Your task to perform on an android device: Open internet settings Image 0: 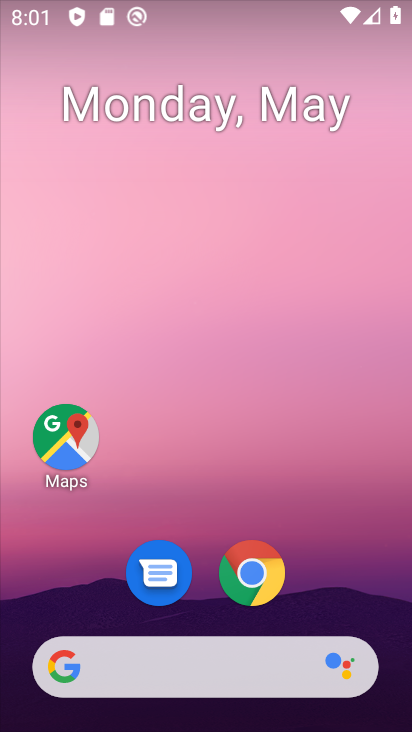
Step 0: drag from (88, 600) to (208, 134)
Your task to perform on an android device: Open internet settings Image 1: 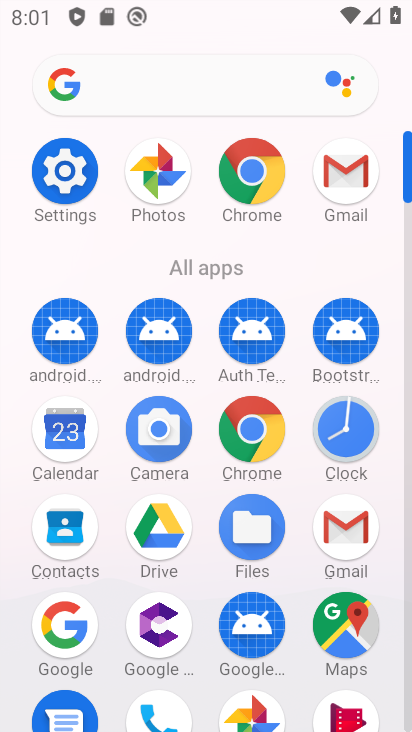
Step 1: drag from (181, 638) to (191, 374)
Your task to perform on an android device: Open internet settings Image 2: 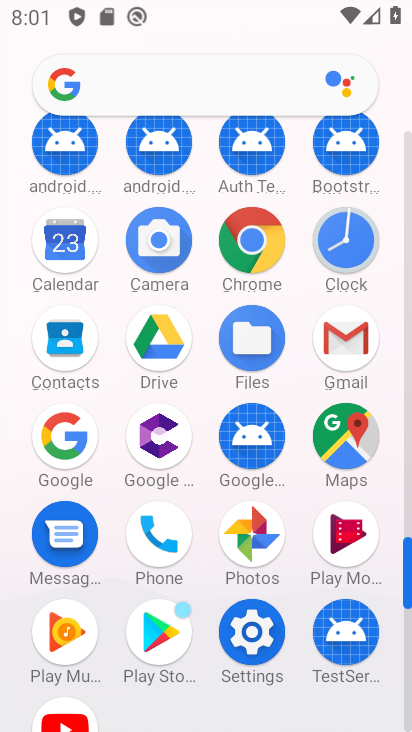
Step 2: click (255, 636)
Your task to perform on an android device: Open internet settings Image 3: 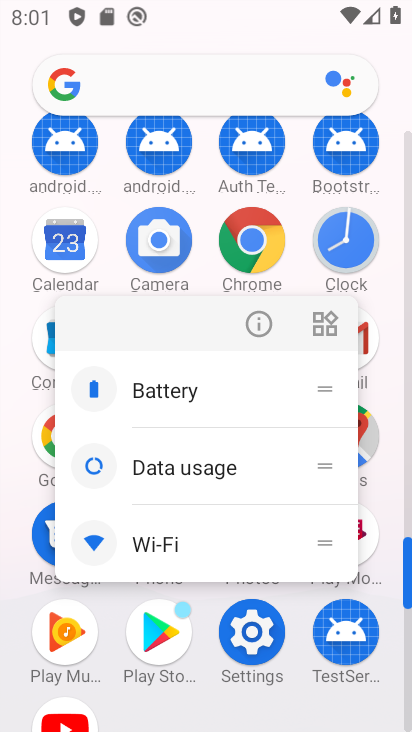
Step 3: click (243, 648)
Your task to perform on an android device: Open internet settings Image 4: 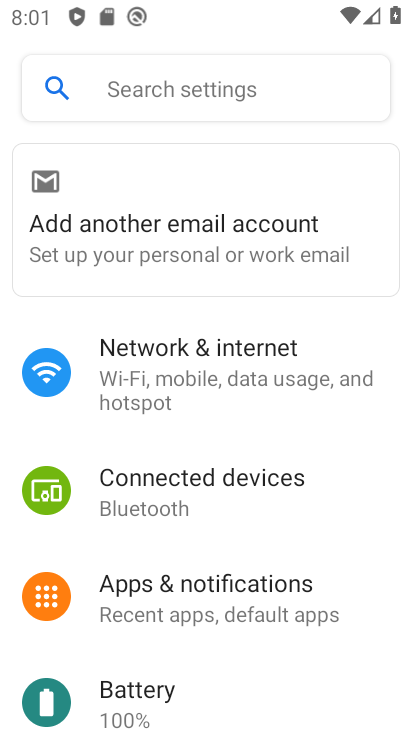
Step 4: click (212, 396)
Your task to perform on an android device: Open internet settings Image 5: 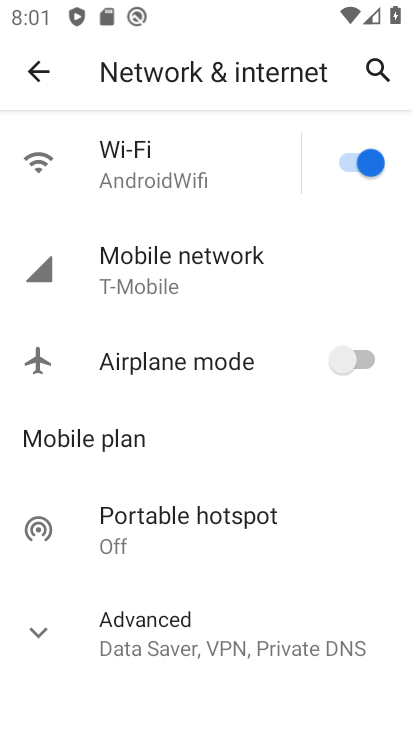
Step 5: click (296, 275)
Your task to perform on an android device: Open internet settings Image 6: 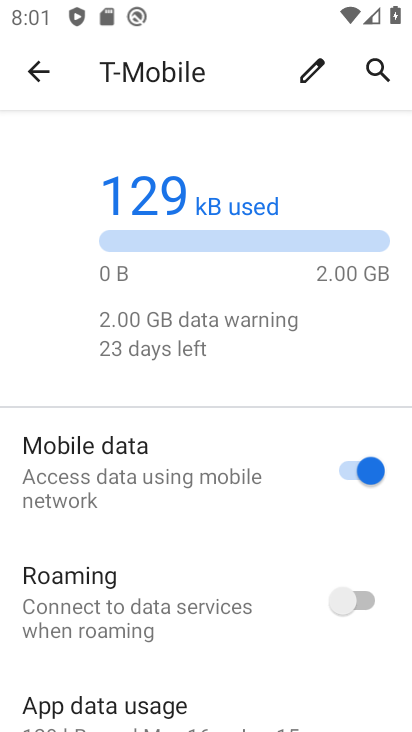
Step 6: task complete